Your task to perform on an android device: Find coffee shops on Maps Image 0: 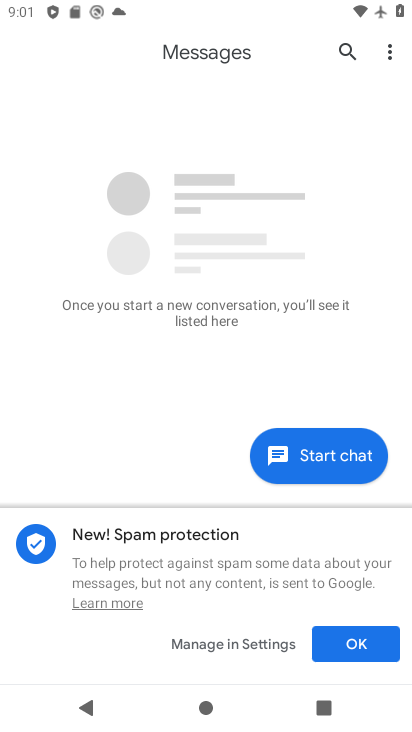
Step 0: press home button
Your task to perform on an android device: Find coffee shops on Maps Image 1: 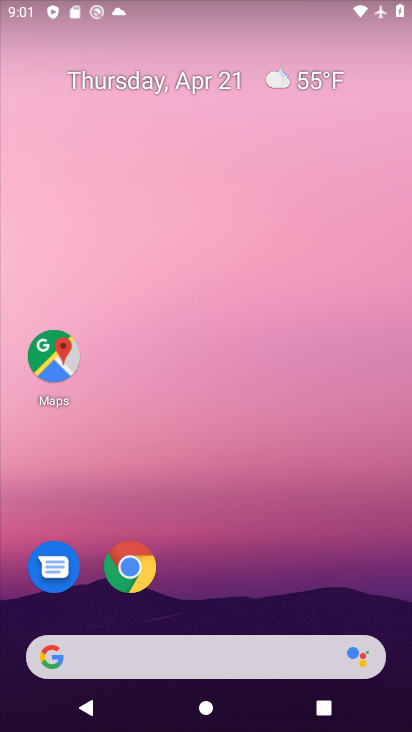
Step 1: click (53, 355)
Your task to perform on an android device: Find coffee shops on Maps Image 2: 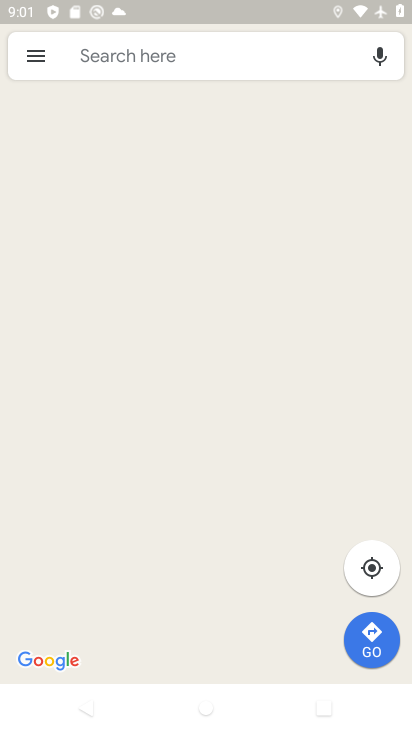
Step 2: click (138, 53)
Your task to perform on an android device: Find coffee shops on Maps Image 3: 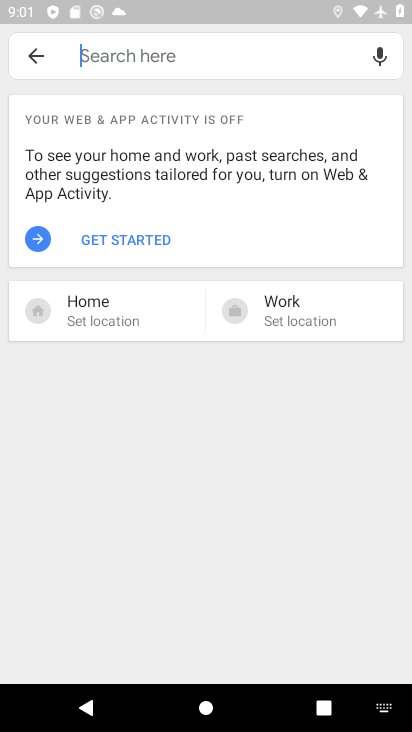
Step 3: type "coffee"
Your task to perform on an android device: Find coffee shops on Maps Image 4: 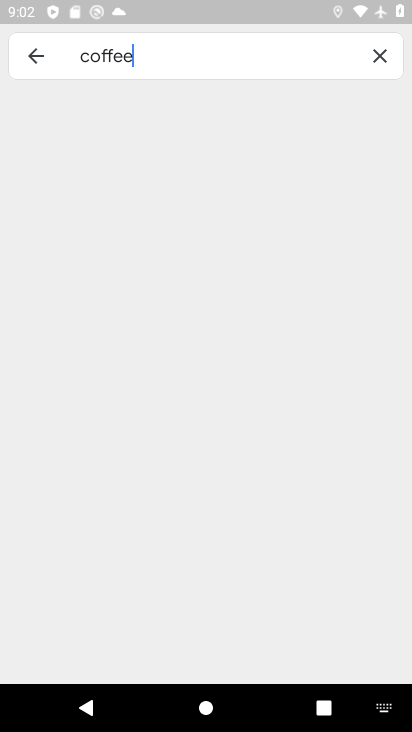
Step 4: task complete